Your task to perform on an android device: View the shopping cart on target. Add jbl flip 4 to the cart on target Image 0: 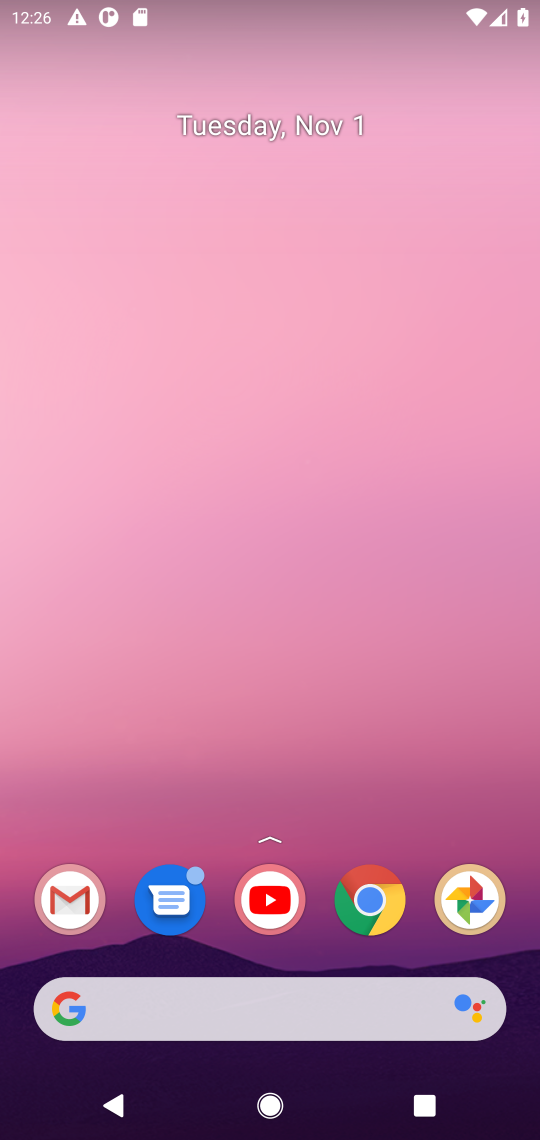
Step 0: click (382, 906)
Your task to perform on an android device: View the shopping cart on target. Add jbl flip 4 to the cart on target Image 1: 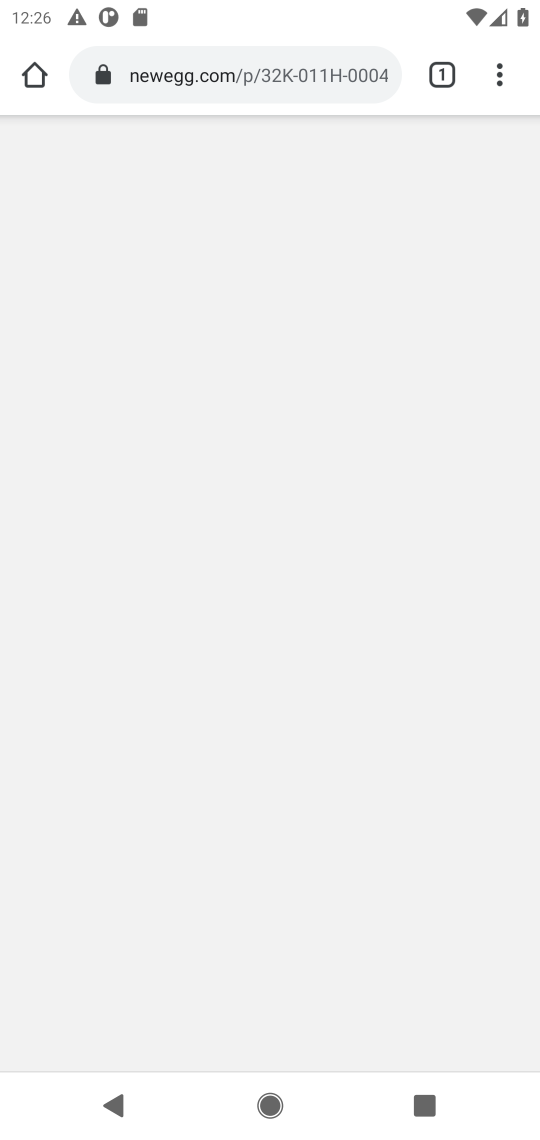
Step 1: click (239, 75)
Your task to perform on an android device: View the shopping cart on target. Add jbl flip 4 to the cart on target Image 2: 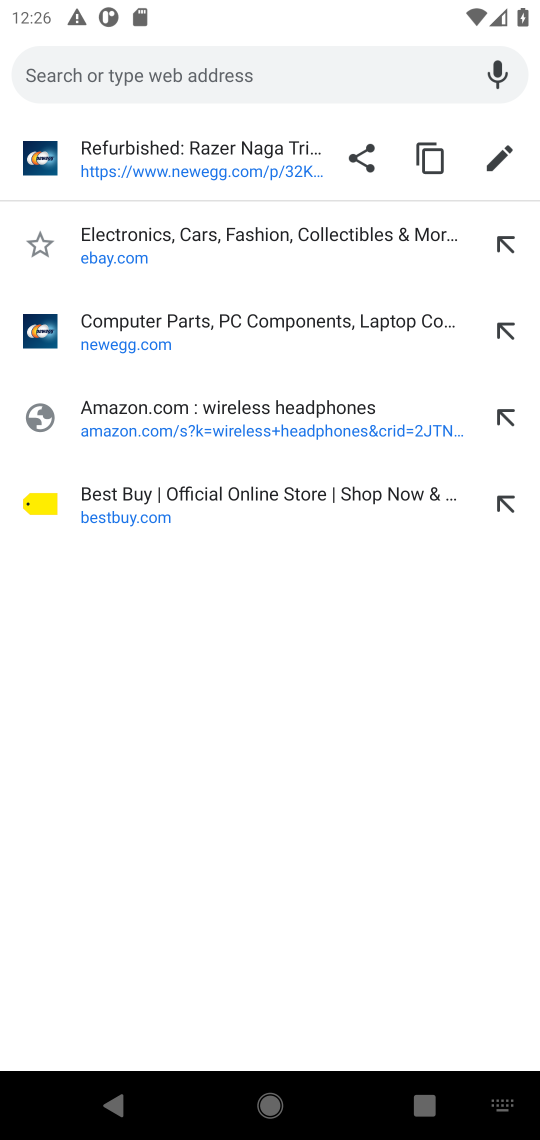
Step 2: type "target"
Your task to perform on an android device: View the shopping cart on target. Add jbl flip 4 to the cart on target Image 3: 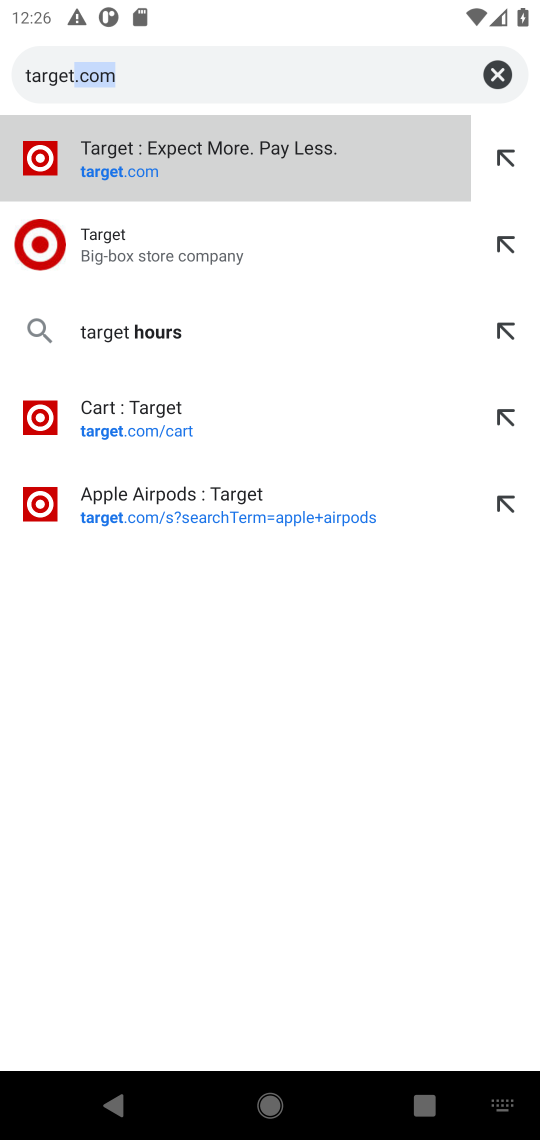
Step 3: click (288, 173)
Your task to perform on an android device: View the shopping cart on target. Add jbl flip 4 to the cart on target Image 4: 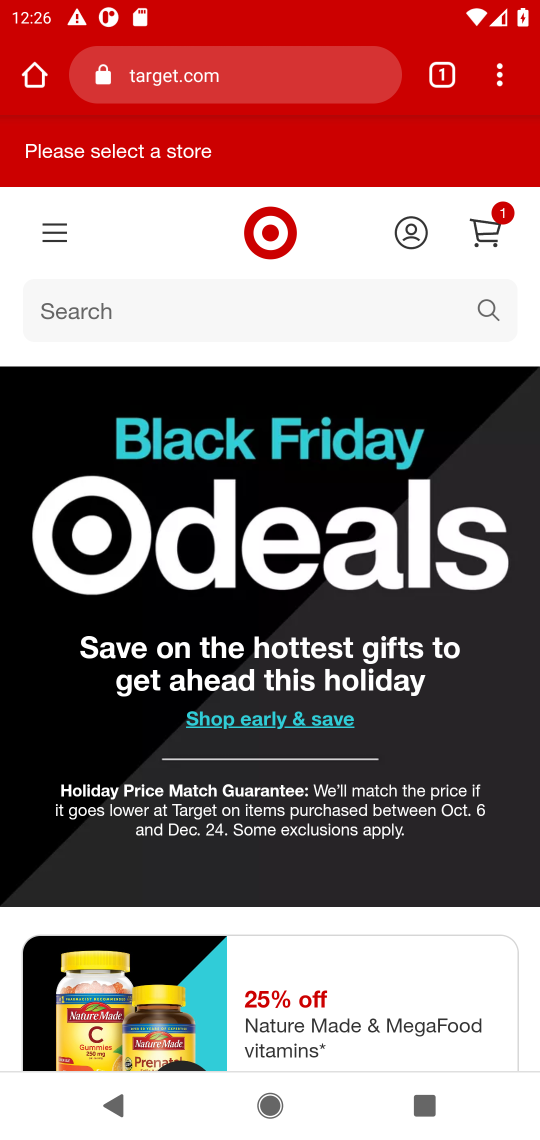
Step 4: click (335, 307)
Your task to perform on an android device: View the shopping cart on target. Add jbl flip 4 to the cart on target Image 5: 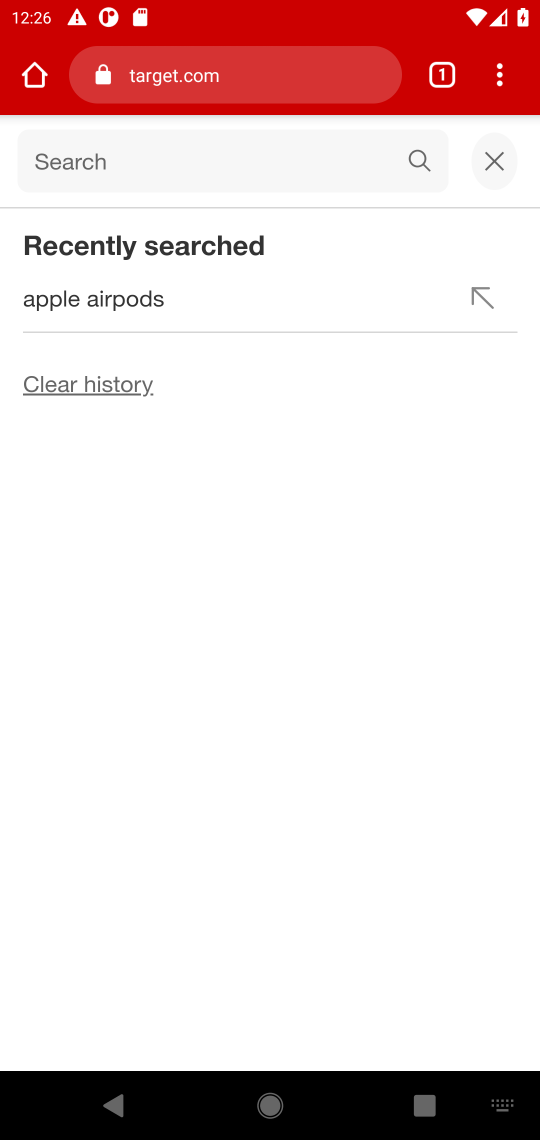
Step 5: type "Add jbl flip 4"
Your task to perform on an android device: View the shopping cart on target. Add jbl flip 4 to the cart on target Image 6: 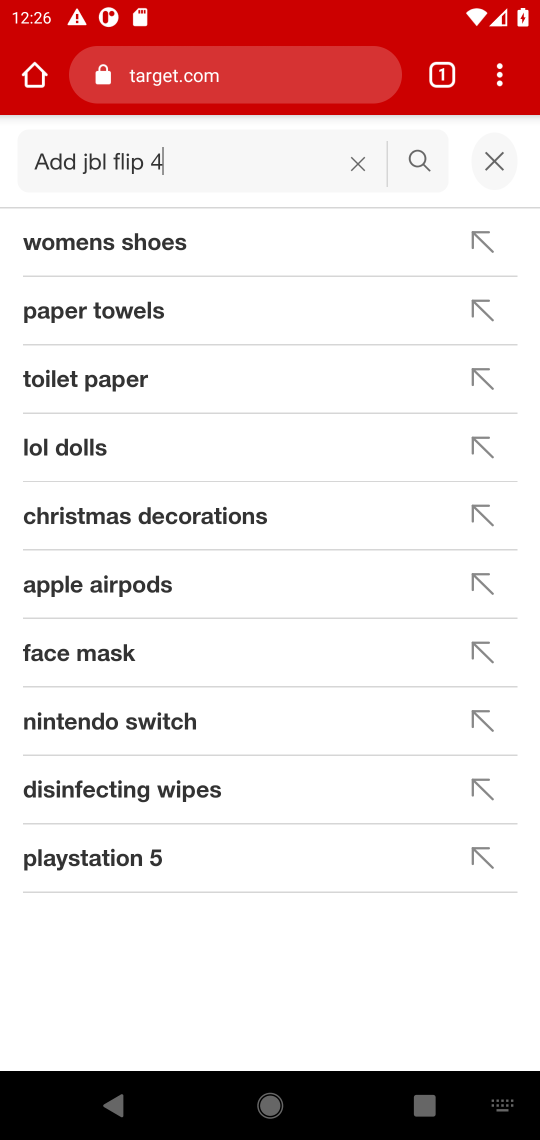
Step 6: press enter
Your task to perform on an android device: View the shopping cart on target. Add jbl flip 4 to the cart on target Image 7: 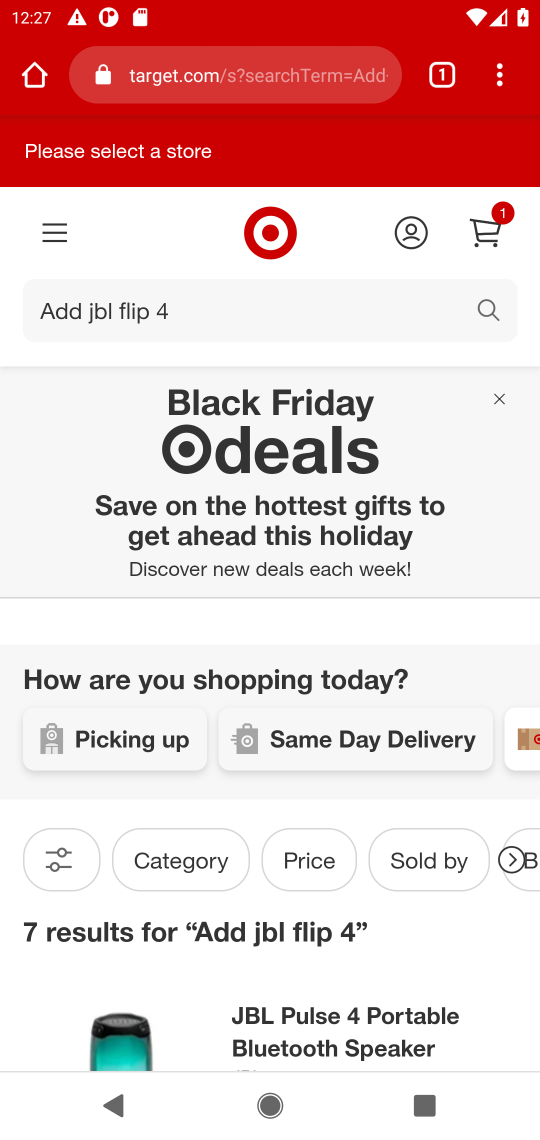
Step 7: drag from (449, 942) to (404, 610)
Your task to perform on an android device: View the shopping cart on target. Add jbl flip 4 to the cart on target Image 8: 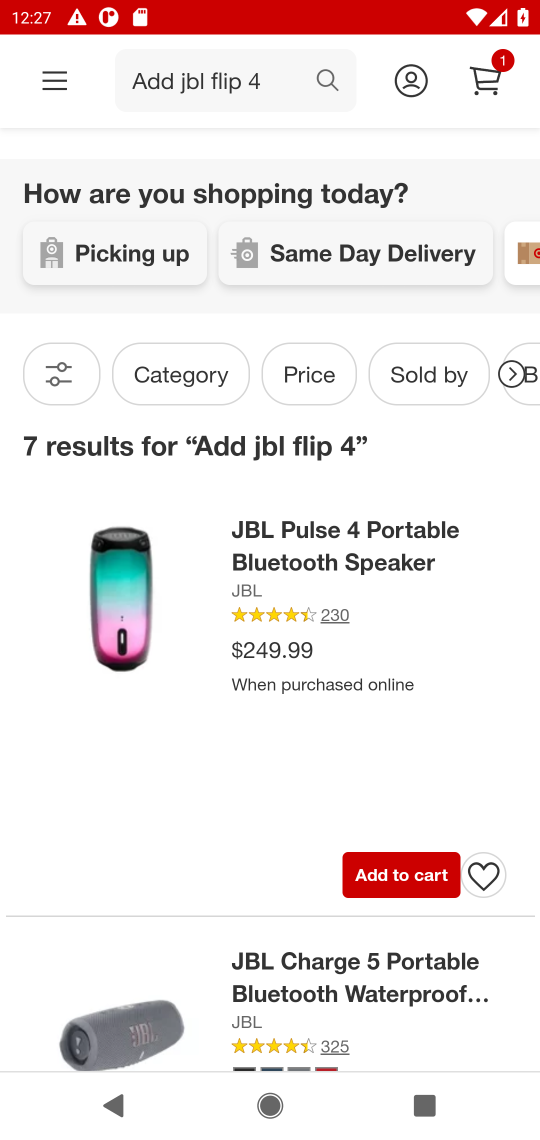
Step 8: click (113, 655)
Your task to perform on an android device: View the shopping cart on target. Add jbl flip 4 to the cart on target Image 9: 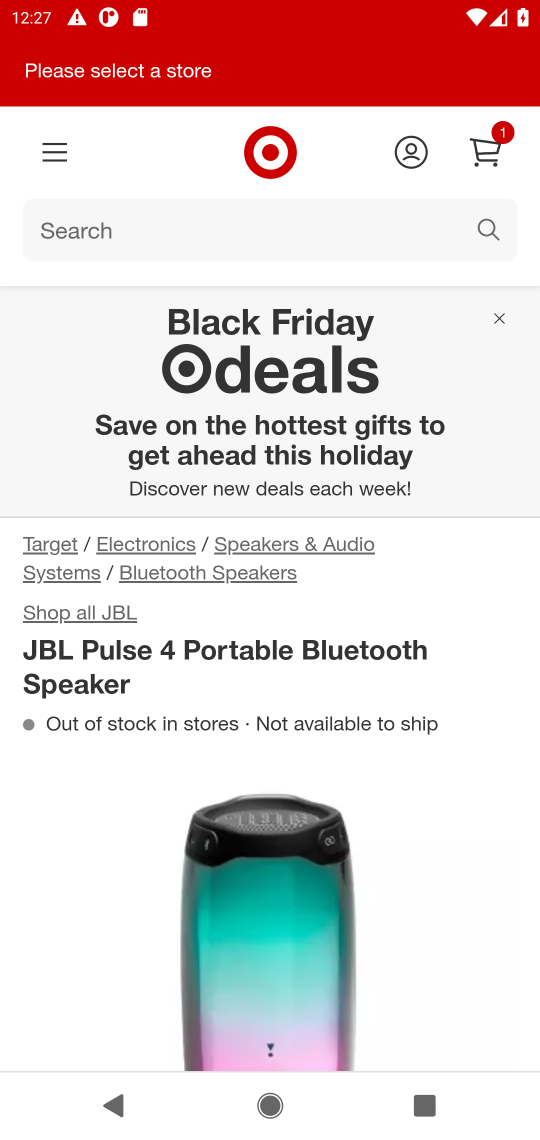
Step 9: task complete